Your task to perform on an android device: Open the stopwatch Image 0: 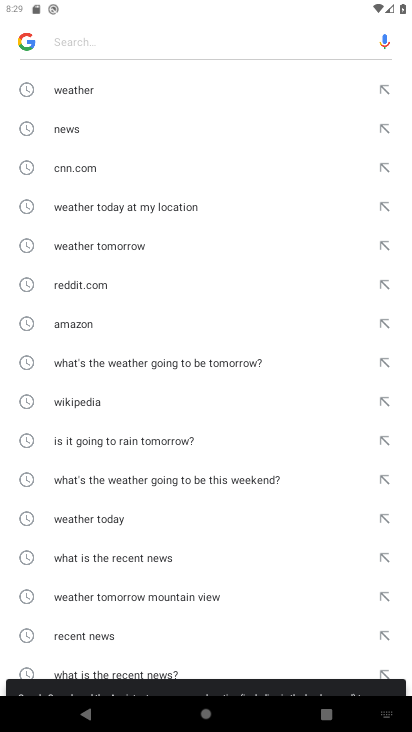
Step 0: press home button
Your task to perform on an android device: Open the stopwatch Image 1: 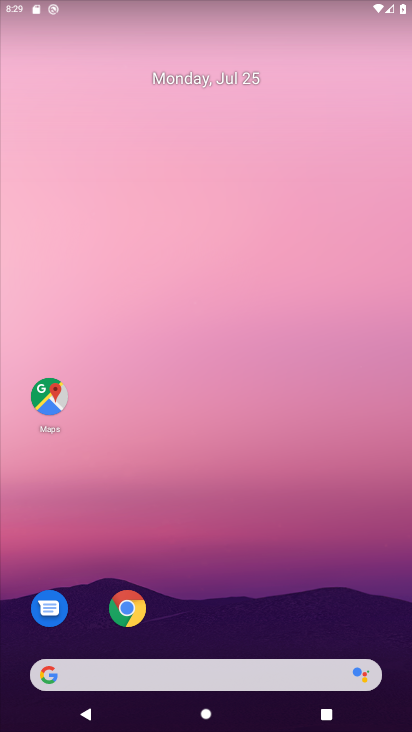
Step 1: drag from (236, 575) to (292, 10)
Your task to perform on an android device: Open the stopwatch Image 2: 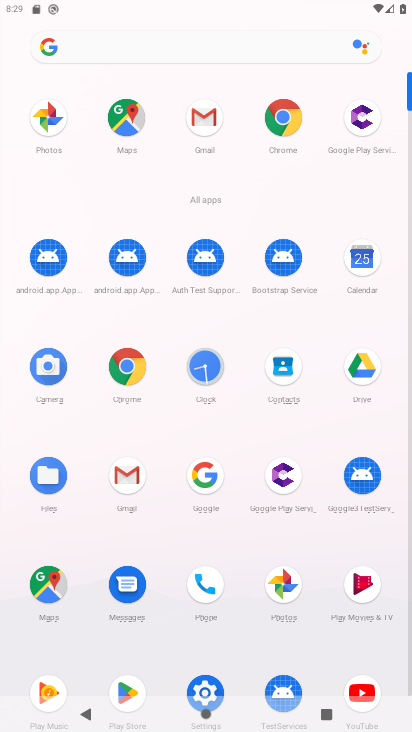
Step 2: click (200, 370)
Your task to perform on an android device: Open the stopwatch Image 3: 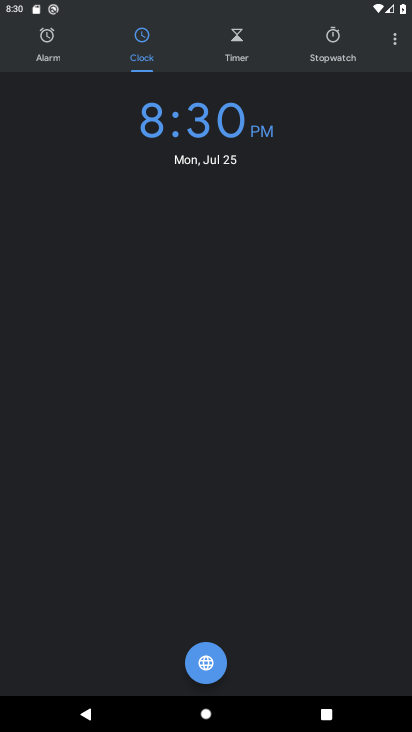
Step 3: click (331, 49)
Your task to perform on an android device: Open the stopwatch Image 4: 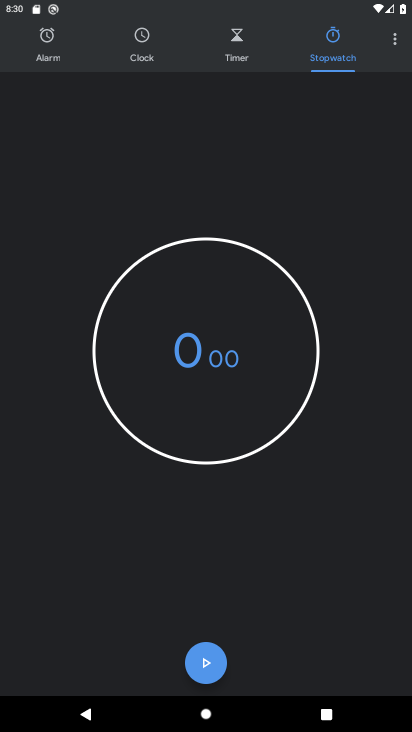
Step 4: task complete